Your task to perform on an android device: add a contact Image 0: 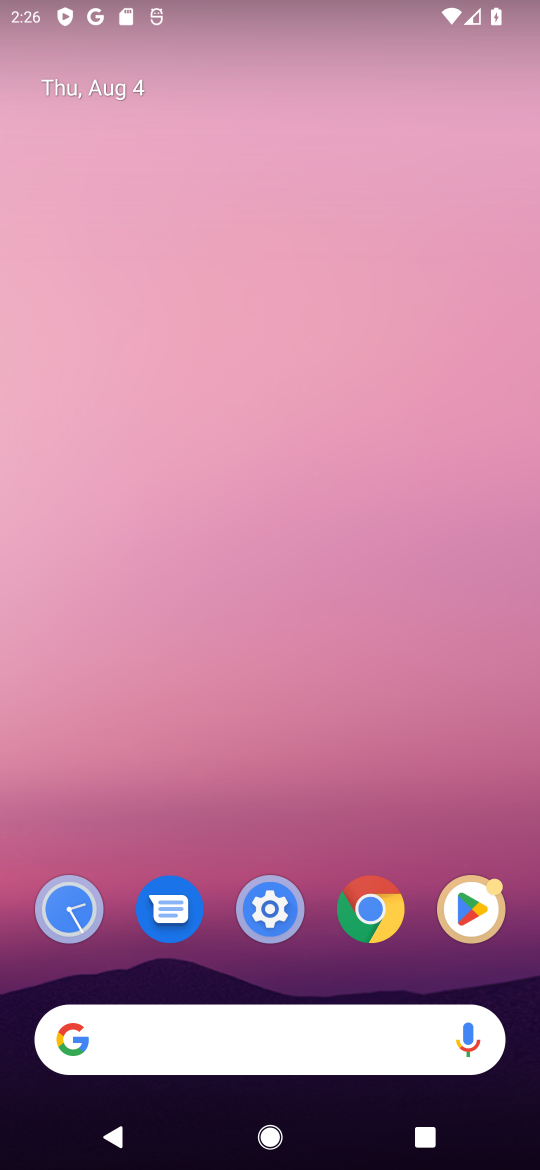
Step 0: drag from (263, 1038) to (417, 148)
Your task to perform on an android device: add a contact Image 1: 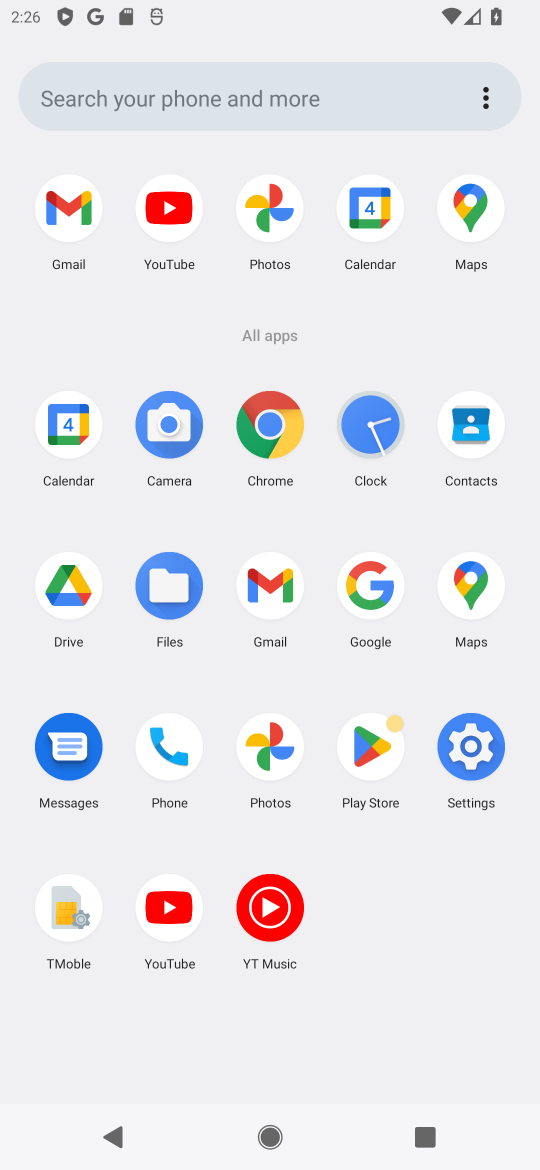
Step 1: click (474, 419)
Your task to perform on an android device: add a contact Image 2: 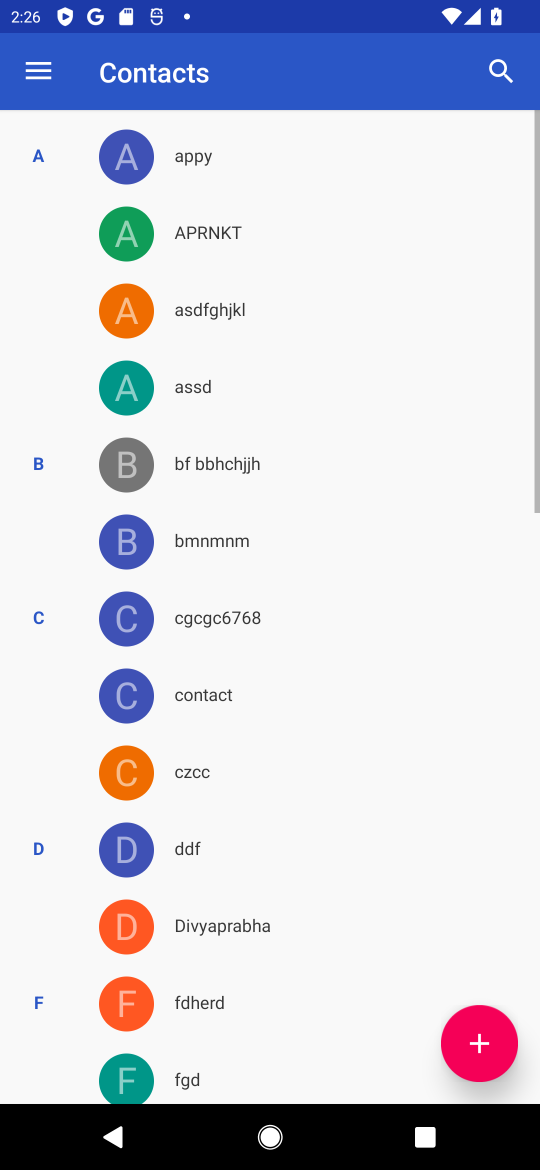
Step 2: click (479, 1026)
Your task to perform on an android device: add a contact Image 3: 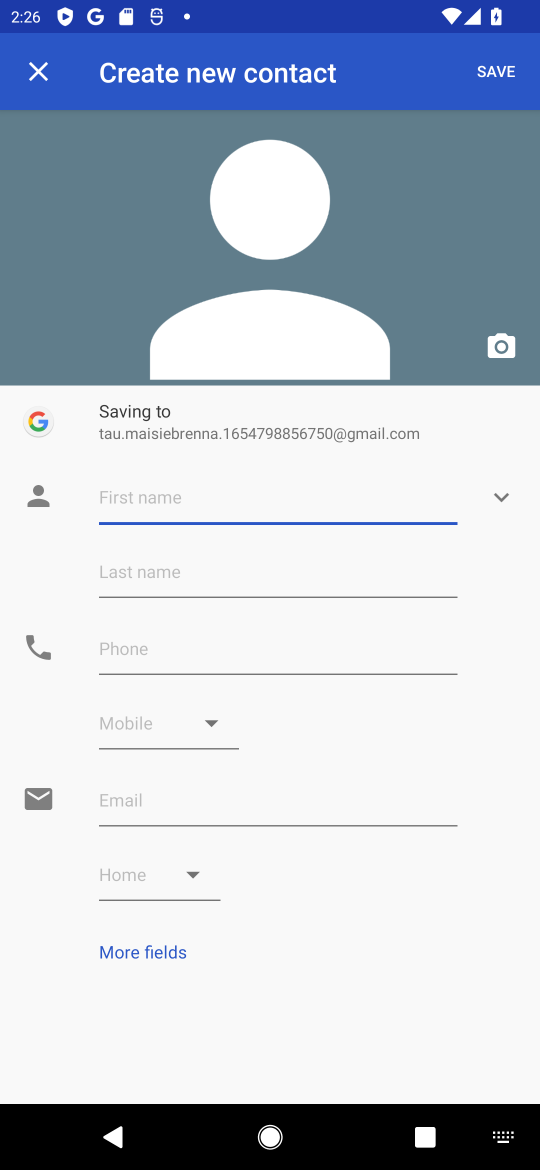
Step 3: type "wsdrffg"
Your task to perform on an android device: add a contact Image 4: 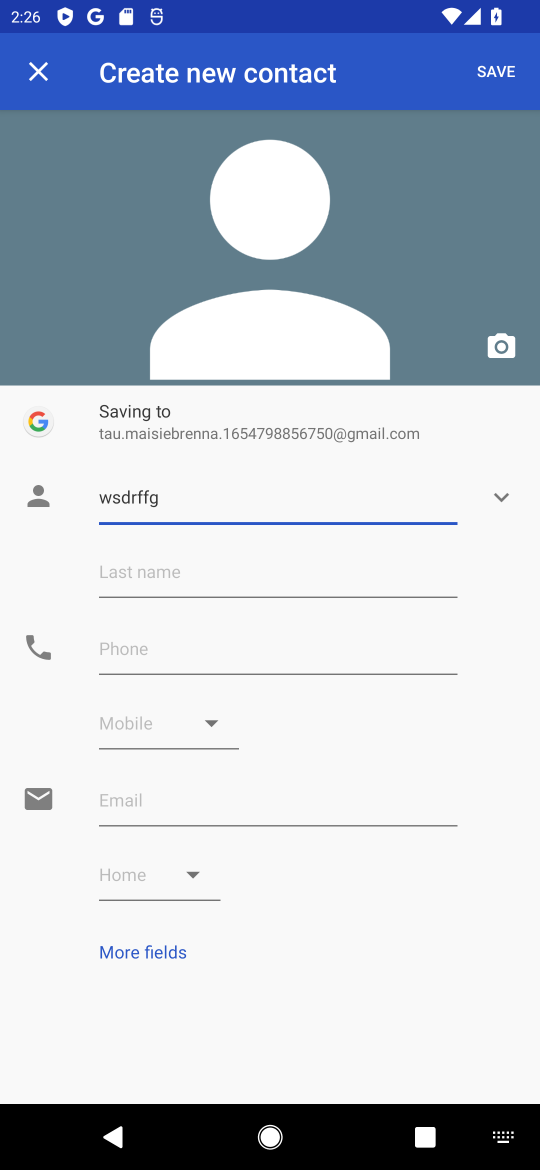
Step 4: click (128, 633)
Your task to perform on an android device: add a contact Image 5: 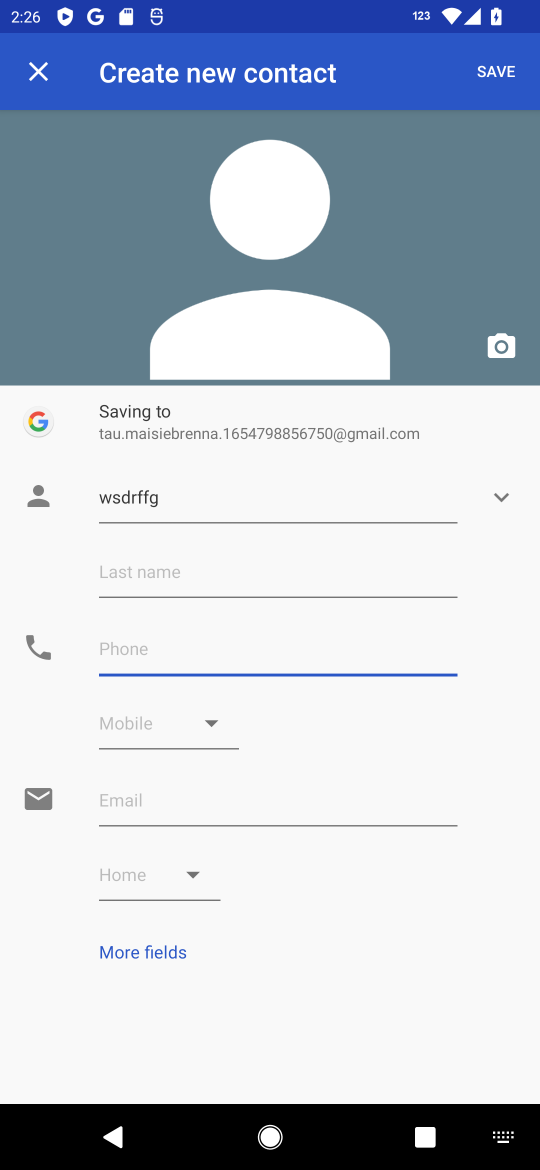
Step 5: type "12543"
Your task to perform on an android device: add a contact Image 6: 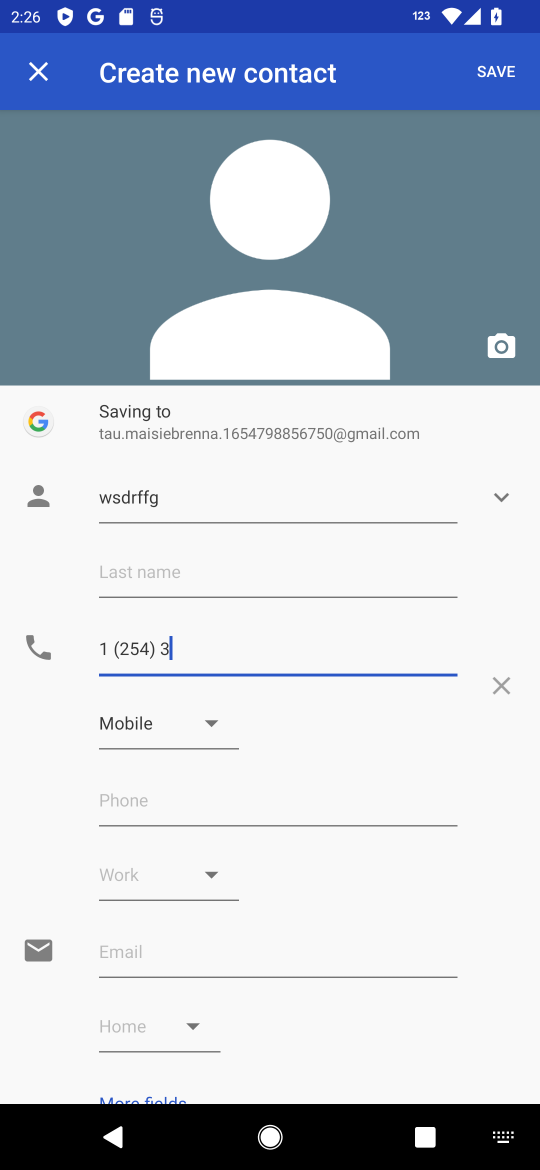
Step 6: click (502, 72)
Your task to perform on an android device: add a contact Image 7: 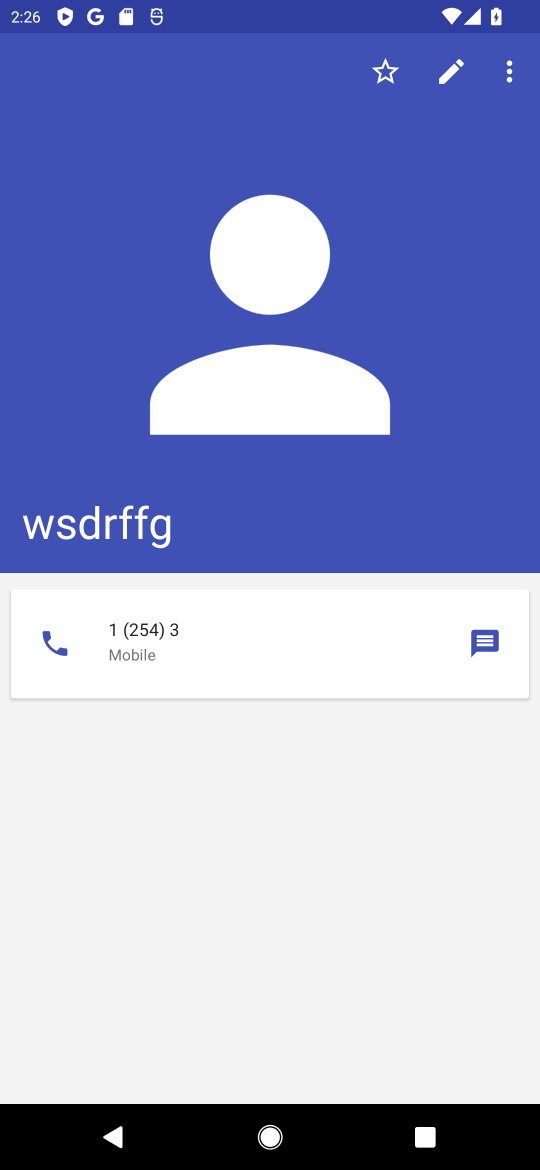
Step 7: task complete